Your task to perform on an android device: Go to Android settings Image 0: 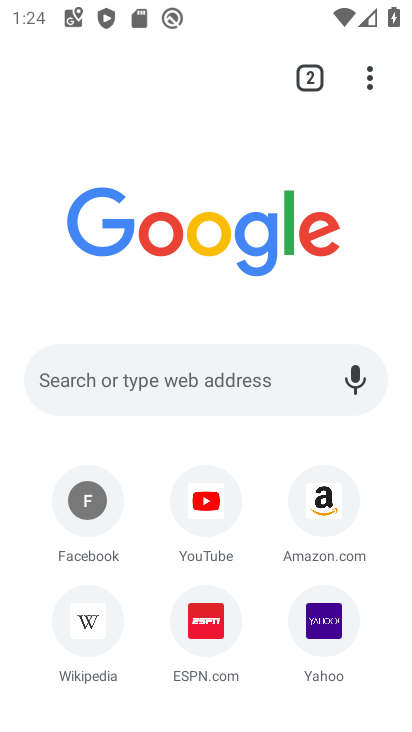
Step 0: press home button
Your task to perform on an android device: Go to Android settings Image 1: 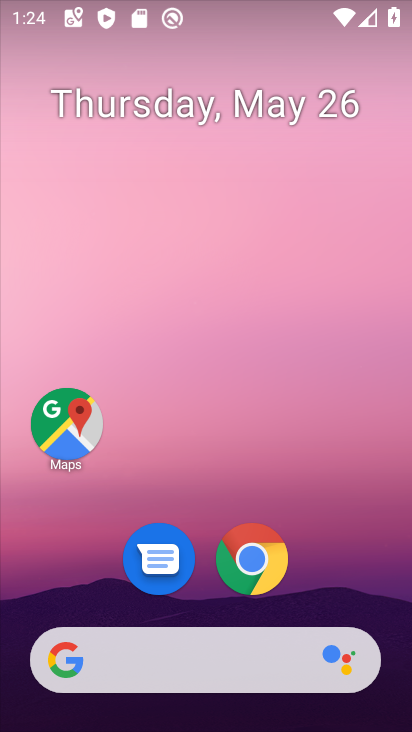
Step 1: drag from (149, 665) to (282, 43)
Your task to perform on an android device: Go to Android settings Image 2: 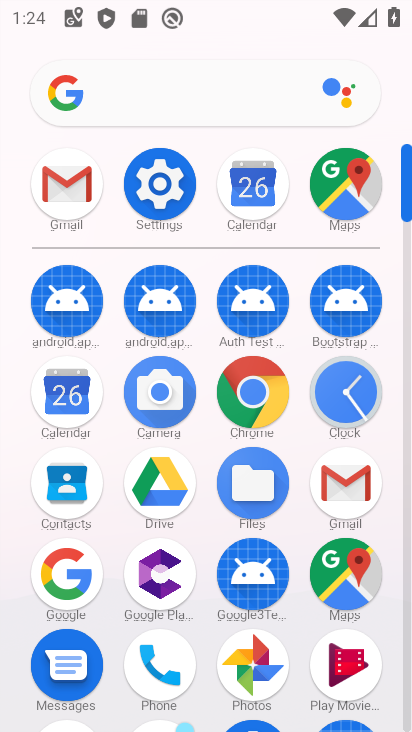
Step 2: click (169, 181)
Your task to perform on an android device: Go to Android settings Image 3: 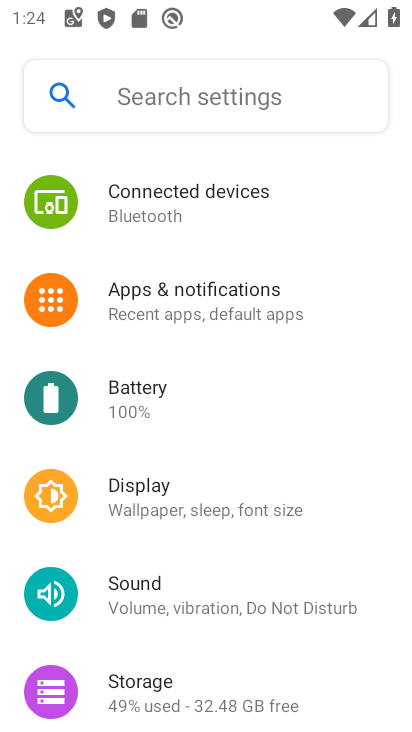
Step 3: task complete